Your task to perform on an android device: Search for seafood restaurants on Google Maps Image 0: 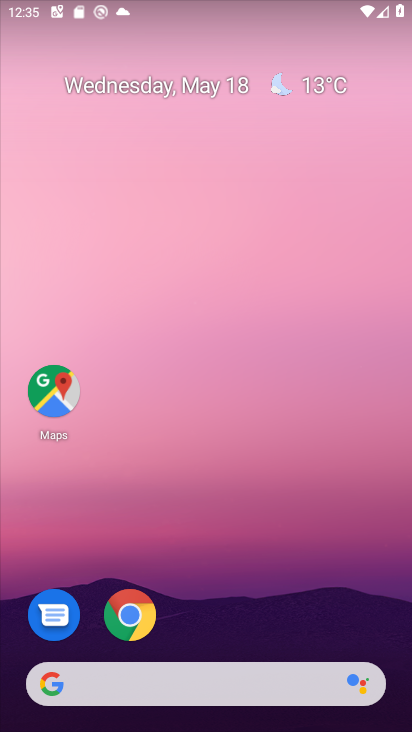
Step 0: click (49, 403)
Your task to perform on an android device: Search for seafood restaurants on Google Maps Image 1: 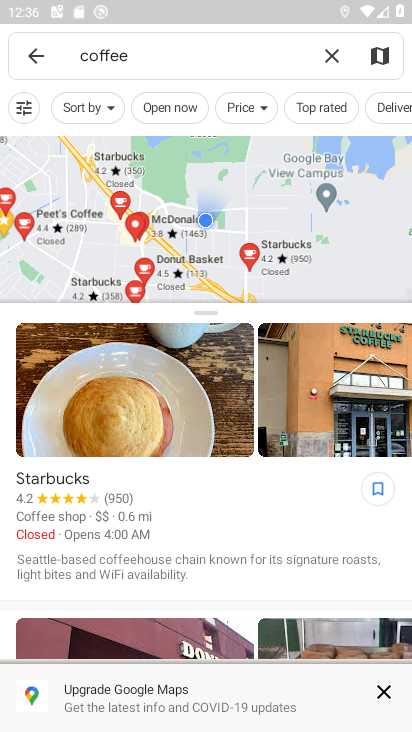
Step 1: click (335, 56)
Your task to perform on an android device: Search for seafood restaurants on Google Maps Image 2: 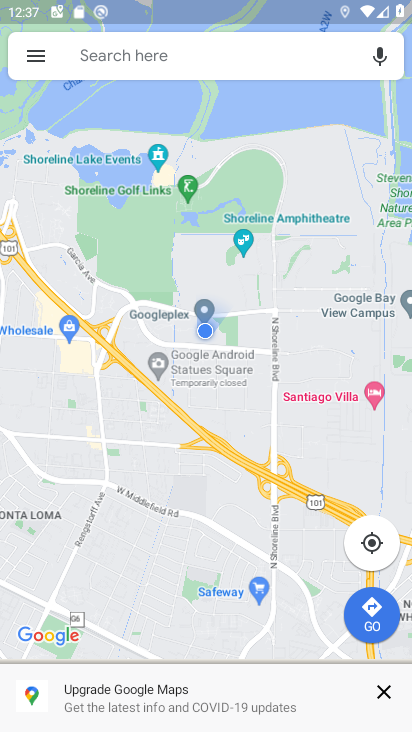
Step 2: click (185, 53)
Your task to perform on an android device: Search for seafood restaurants on Google Maps Image 3: 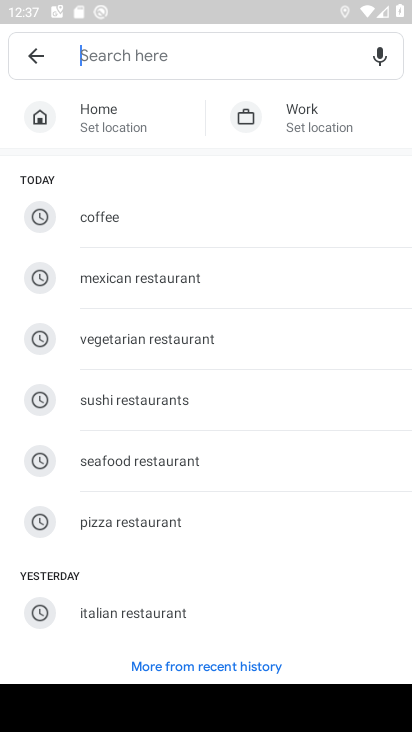
Step 3: type "seafood restaurants"
Your task to perform on an android device: Search for seafood restaurants on Google Maps Image 4: 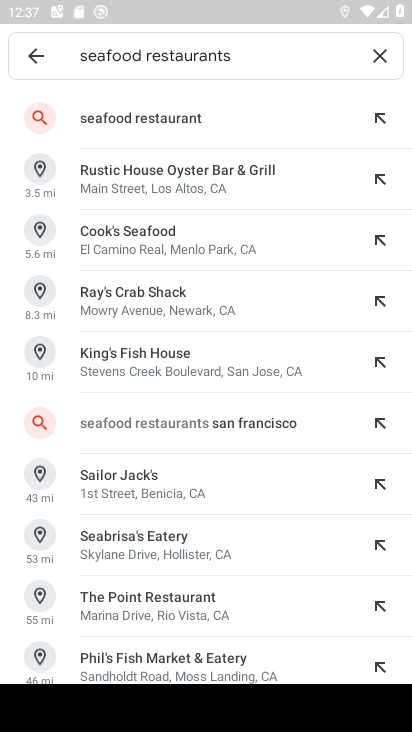
Step 4: click (134, 117)
Your task to perform on an android device: Search for seafood restaurants on Google Maps Image 5: 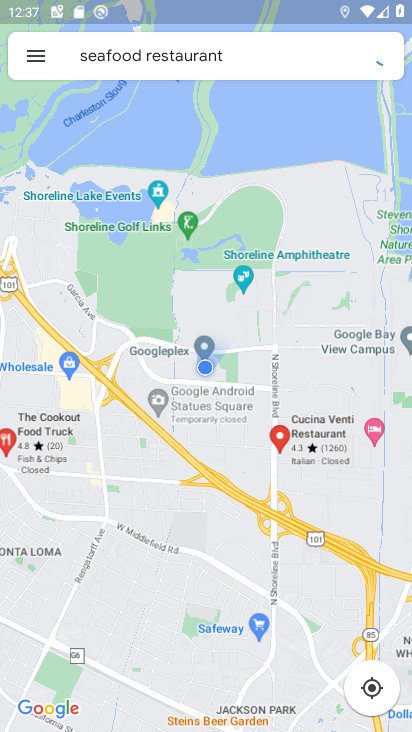
Step 5: task complete